Your task to perform on an android device: set the stopwatch Image 0: 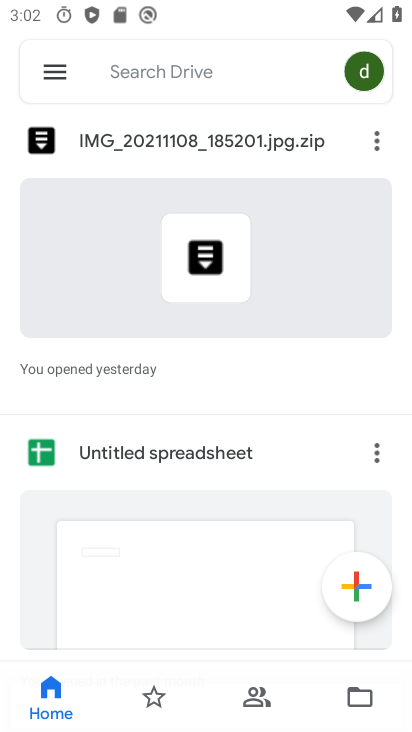
Step 0: press home button
Your task to perform on an android device: set the stopwatch Image 1: 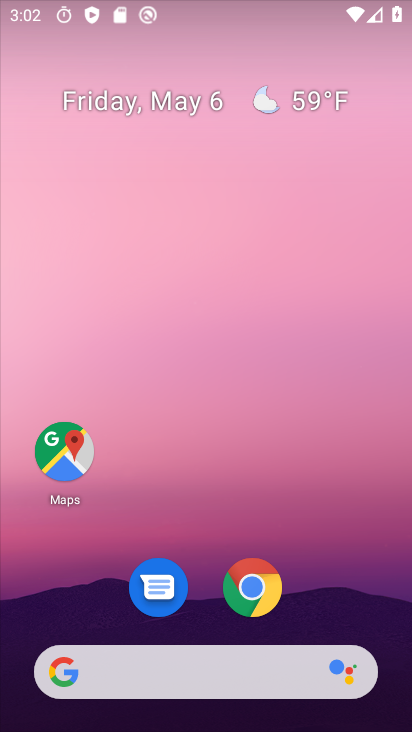
Step 1: drag from (224, 493) to (239, 36)
Your task to perform on an android device: set the stopwatch Image 2: 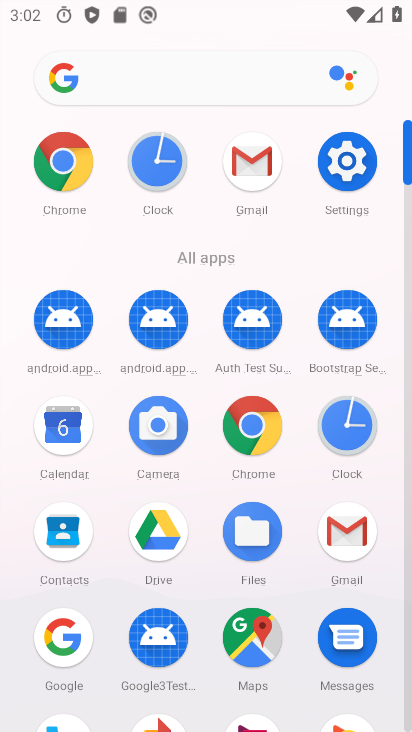
Step 2: click (145, 156)
Your task to perform on an android device: set the stopwatch Image 3: 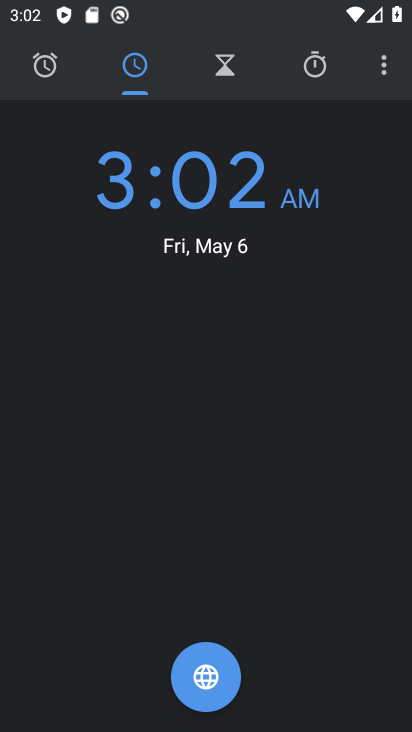
Step 3: click (316, 64)
Your task to perform on an android device: set the stopwatch Image 4: 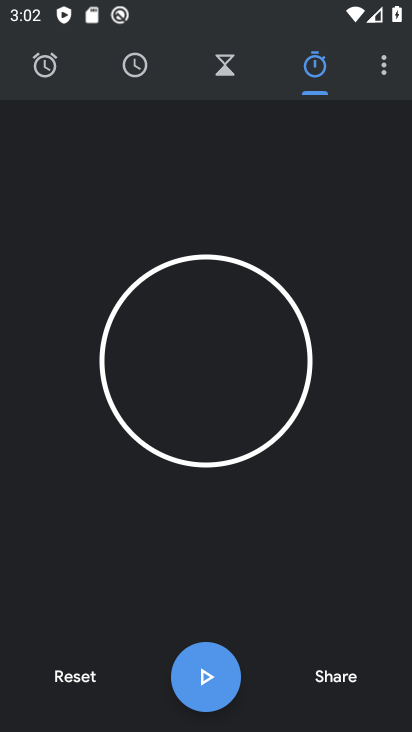
Step 4: click (193, 671)
Your task to perform on an android device: set the stopwatch Image 5: 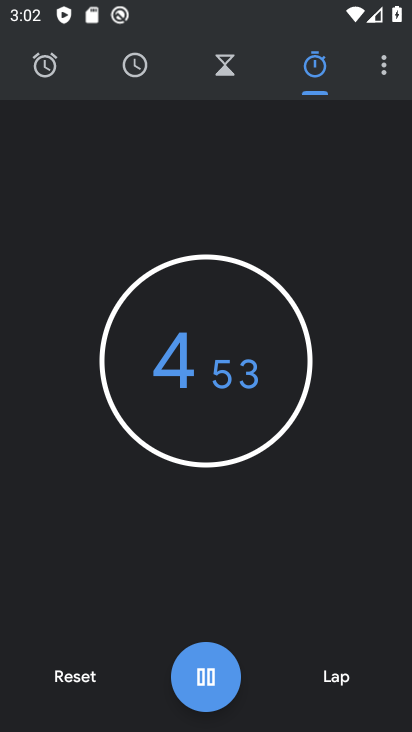
Step 5: click (197, 668)
Your task to perform on an android device: set the stopwatch Image 6: 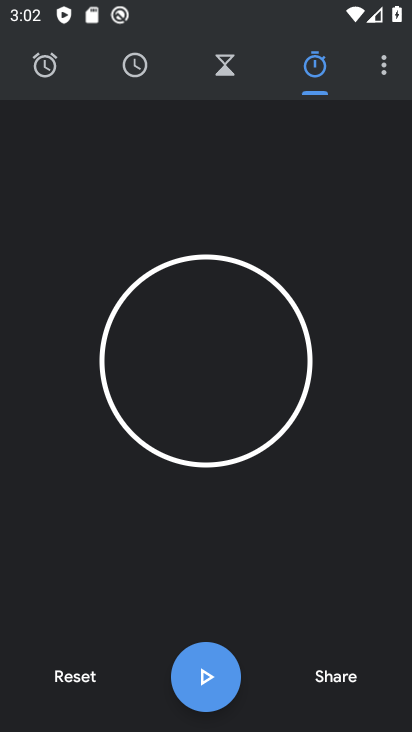
Step 6: task complete